Your task to perform on an android device: turn off location history Image 0: 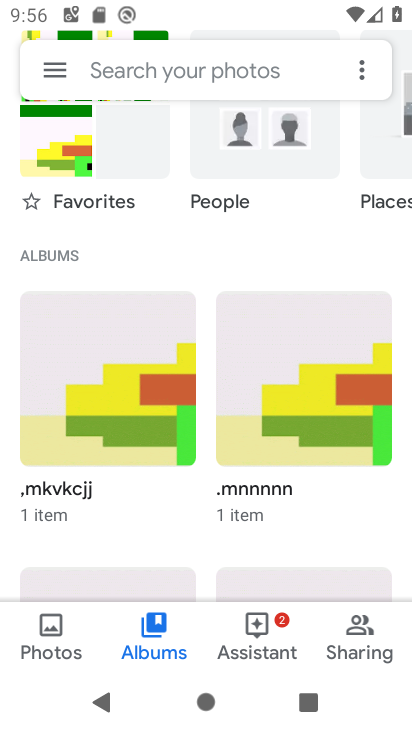
Step 0: press home button
Your task to perform on an android device: turn off location history Image 1: 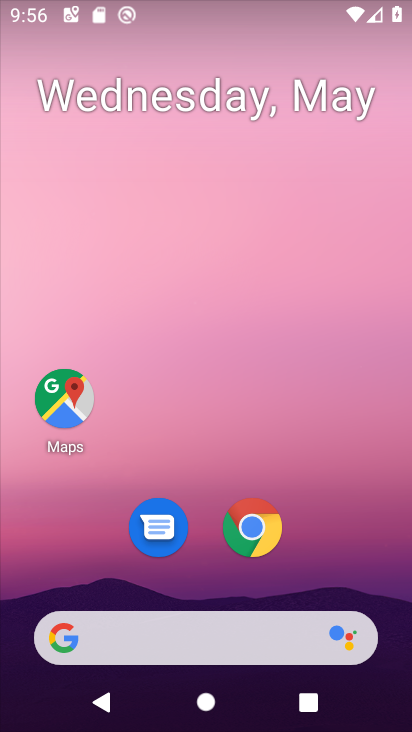
Step 1: drag from (177, 560) to (253, 119)
Your task to perform on an android device: turn off location history Image 2: 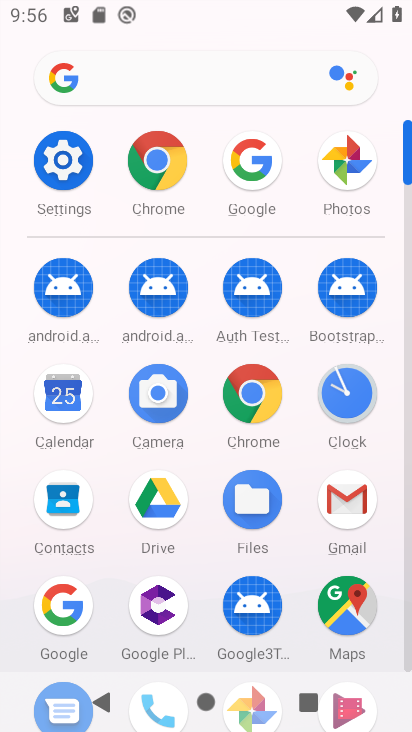
Step 2: click (70, 156)
Your task to perform on an android device: turn off location history Image 3: 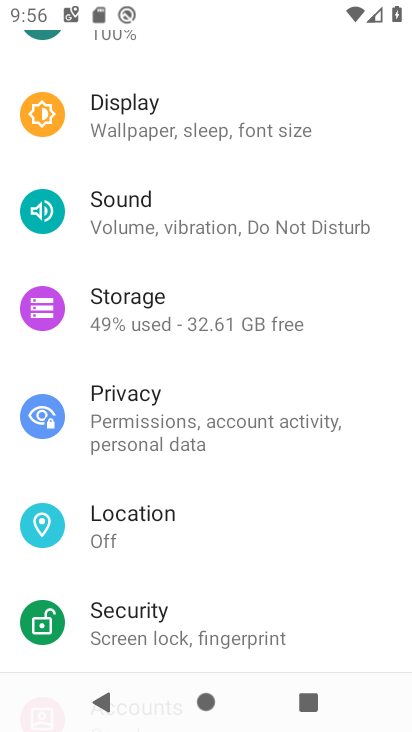
Step 3: click (134, 528)
Your task to perform on an android device: turn off location history Image 4: 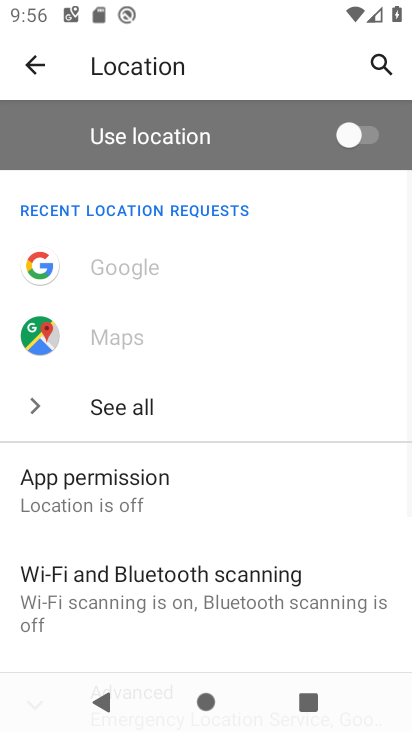
Step 4: drag from (133, 516) to (172, 235)
Your task to perform on an android device: turn off location history Image 5: 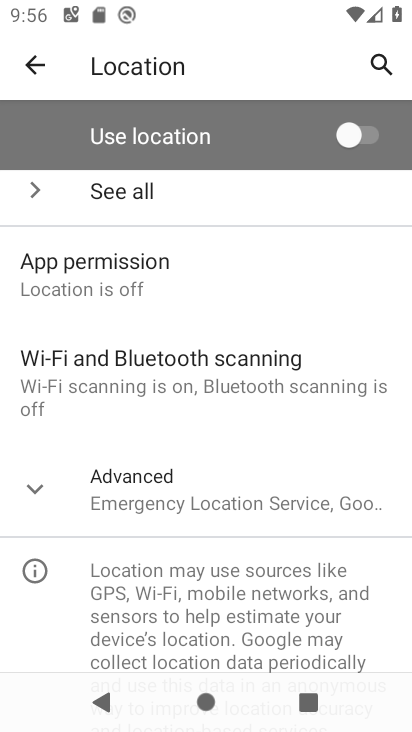
Step 5: click (164, 504)
Your task to perform on an android device: turn off location history Image 6: 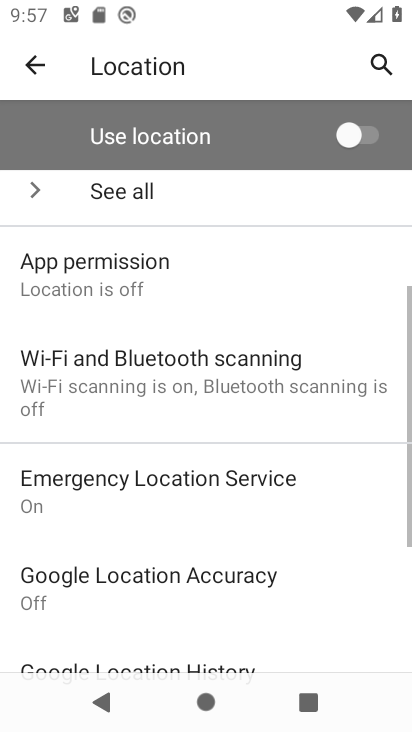
Step 6: drag from (223, 597) to (242, 390)
Your task to perform on an android device: turn off location history Image 7: 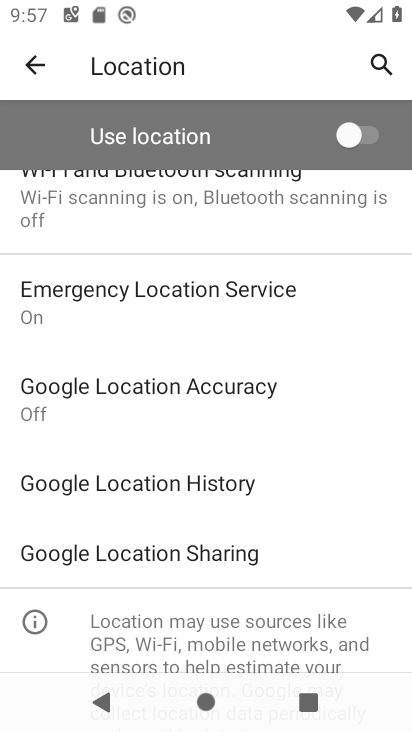
Step 7: click (167, 482)
Your task to perform on an android device: turn off location history Image 8: 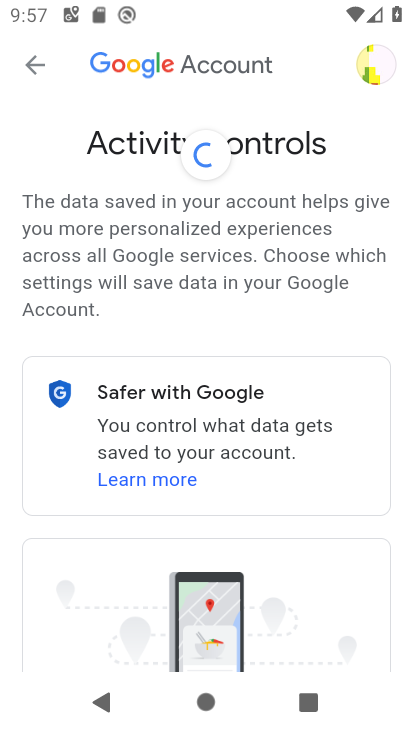
Step 8: drag from (300, 579) to (309, 126)
Your task to perform on an android device: turn off location history Image 9: 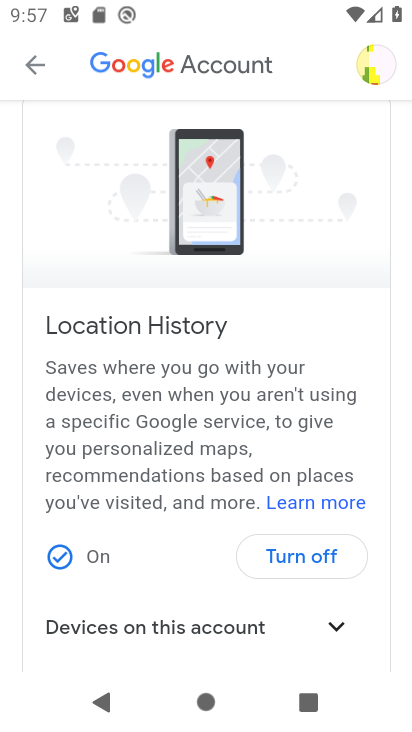
Step 9: drag from (288, 579) to (294, 349)
Your task to perform on an android device: turn off location history Image 10: 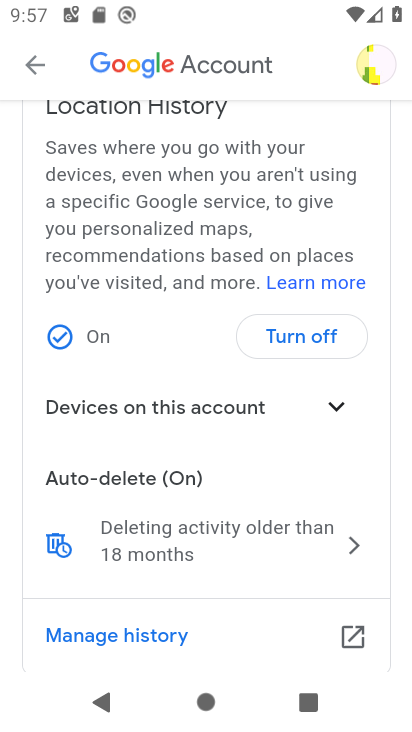
Step 10: click (295, 331)
Your task to perform on an android device: turn off location history Image 11: 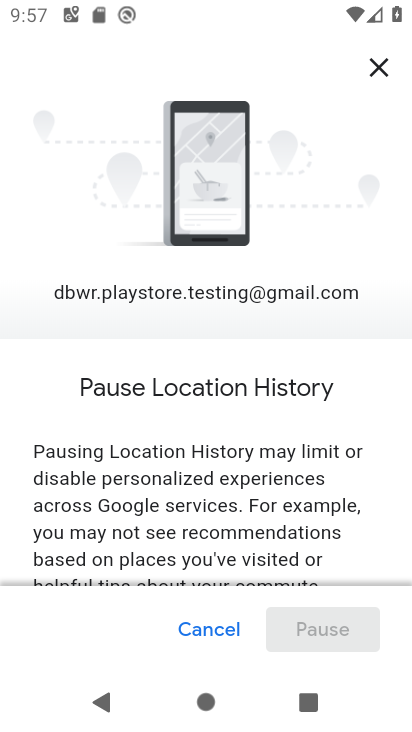
Step 11: drag from (286, 617) to (284, 94)
Your task to perform on an android device: turn off location history Image 12: 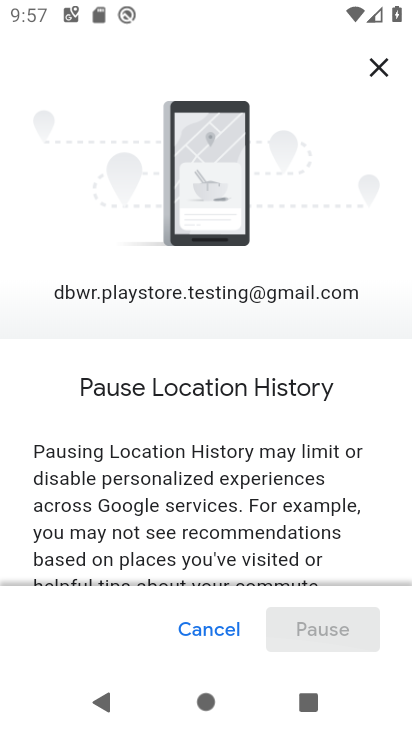
Step 12: drag from (297, 471) to (308, 53)
Your task to perform on an android device: turn off location history Image 13: 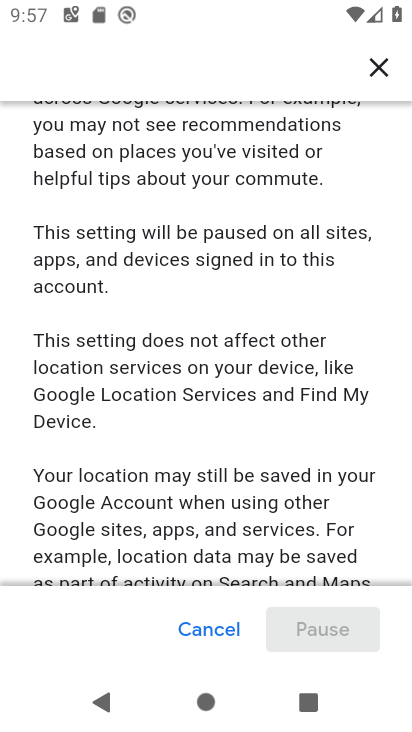
Step 13: drag from (326, 544) to (344, 61)
Your task to perform on an android device: turn off location history Image 14: 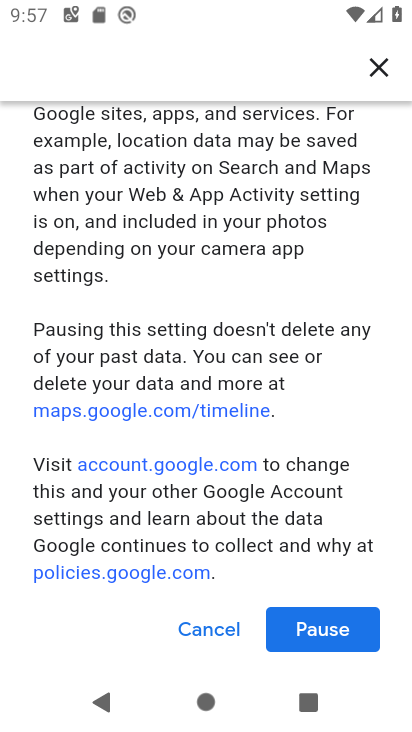
Step 14: click (308, 632)
Your task to perform on an android device: turn off location history Image 15: 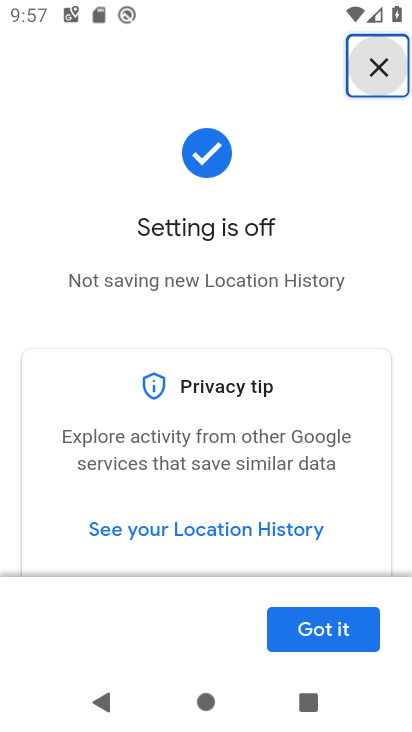
Step 15: click (307, 632)
Your task to perform on an android device: turn off location history Image 16: 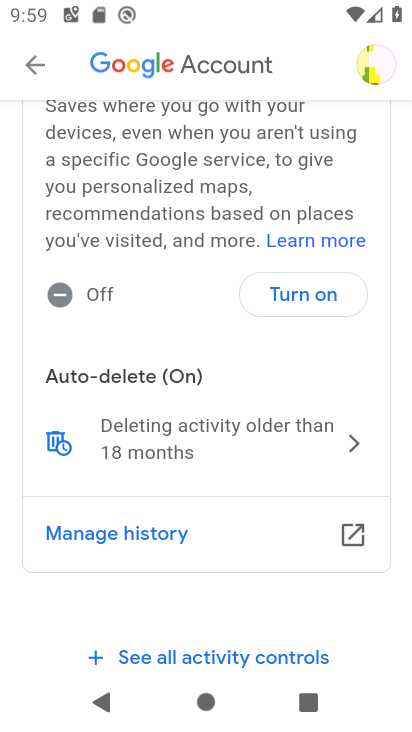
Step 16: task complete